Your task to perform on an android device: What's the weather? Image 0: 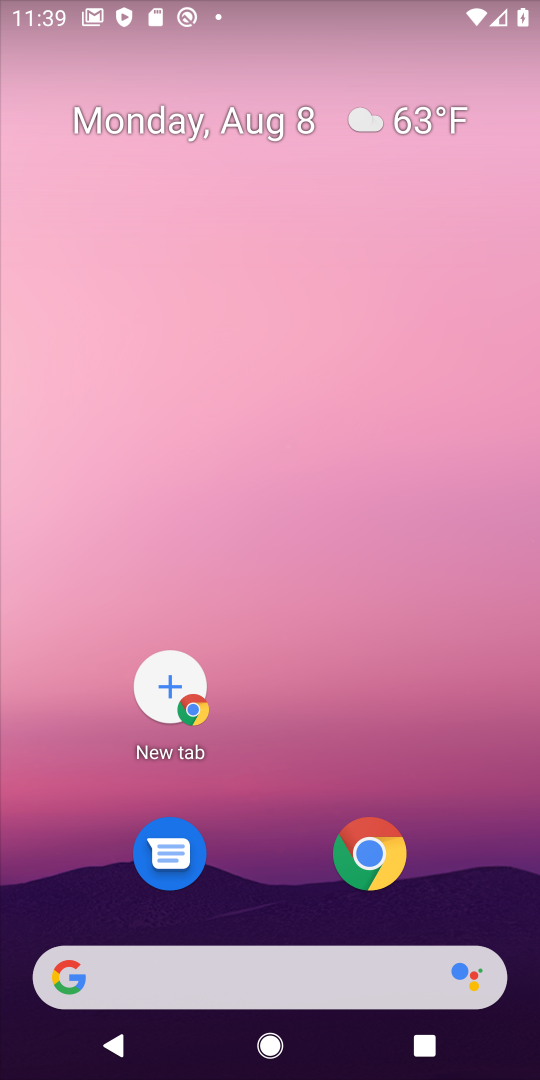
Step 0: click (221, 984)
Your task to perform on an android device: What's the weather? Image 1: 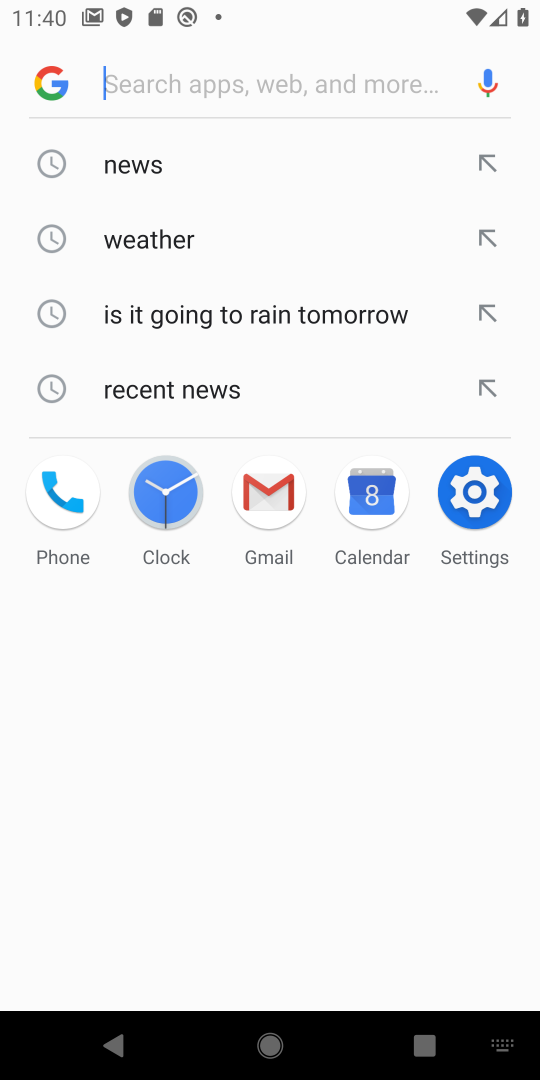
Step 1: click (180, 242)
Your task to perform on an android device: What's the weather? Image 2: 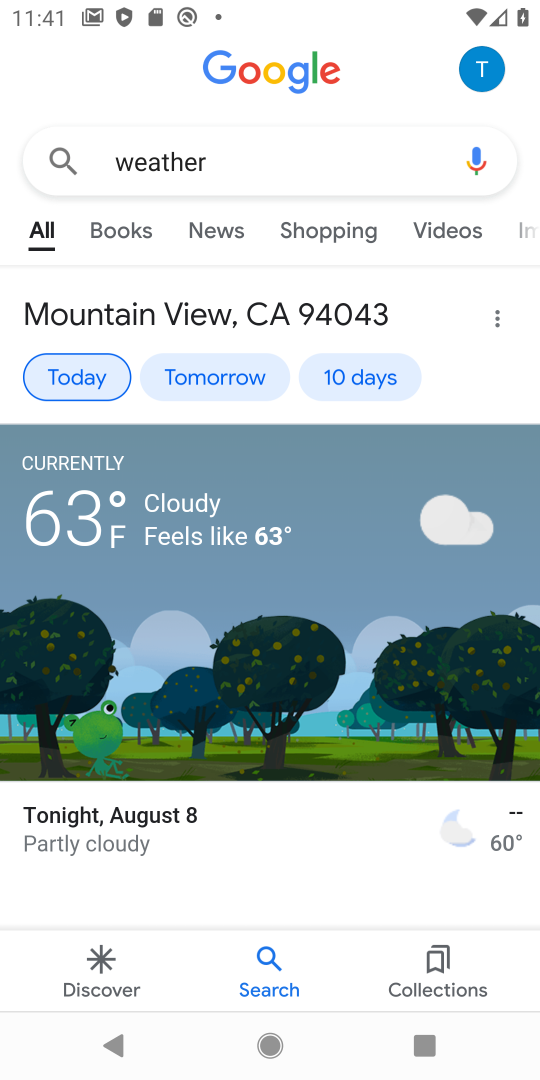
Step 2: task complete